Your task to perform on an android device: Search for sushi restaurants on Maps Image 0: 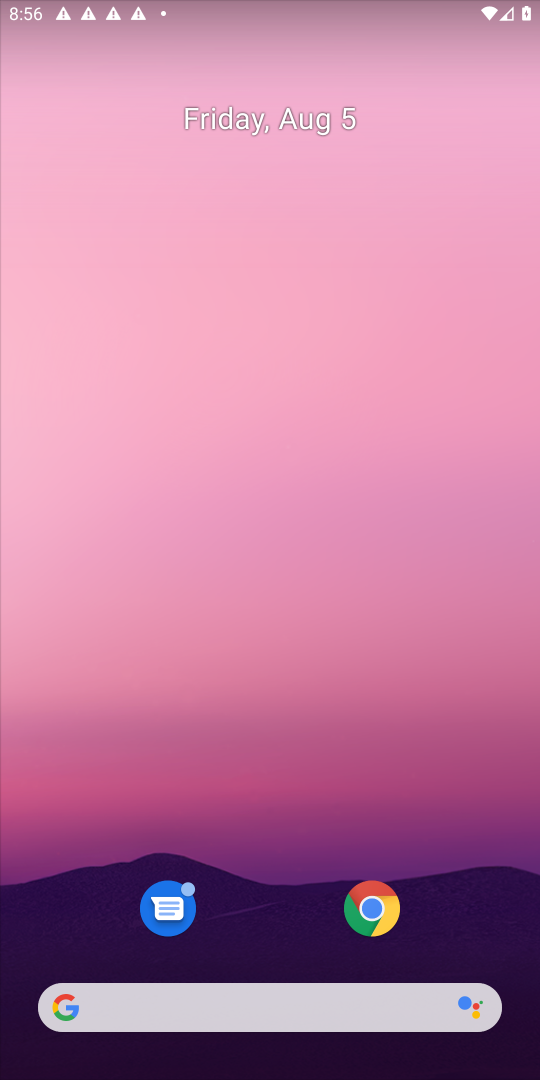
Step 0: drag from (283, 840) to (270, 373)
Your task to perform on an android device: Search for sushi restaurants on Maps Image 1: 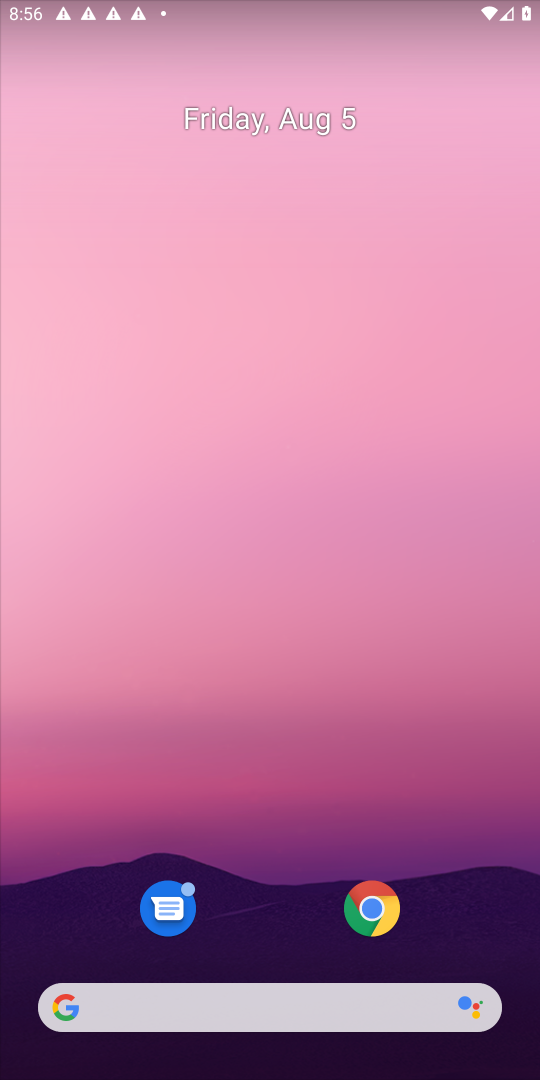
Step 1: drag from (287, 922) to (230, 73)
Your task to perform on an android device: Search for sushi restaurants on Maps Image 2: 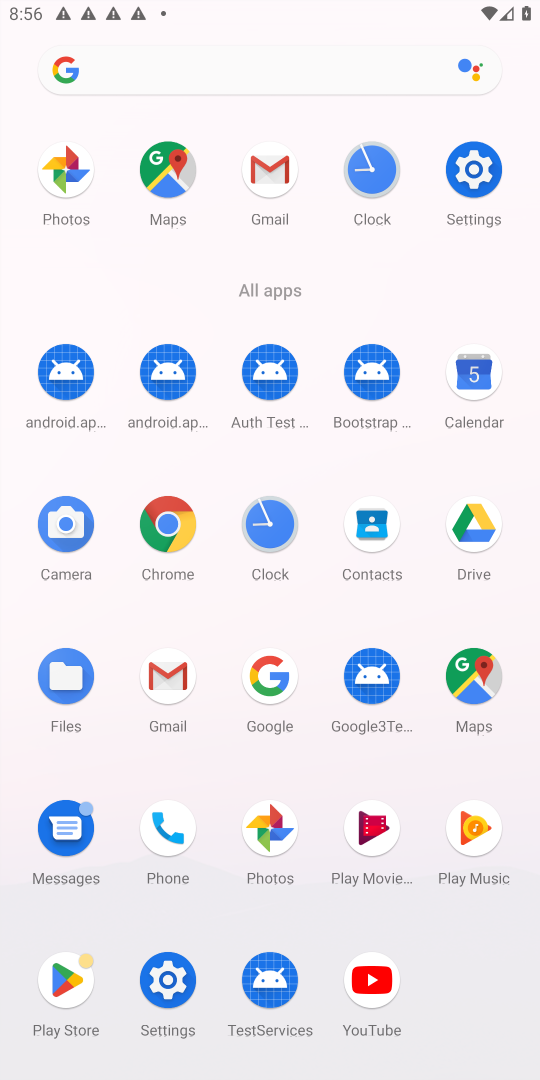
Step 2: click (171, 162)
Your task to perform on an android device: Search for sushi restaurants on Maps Image 3: 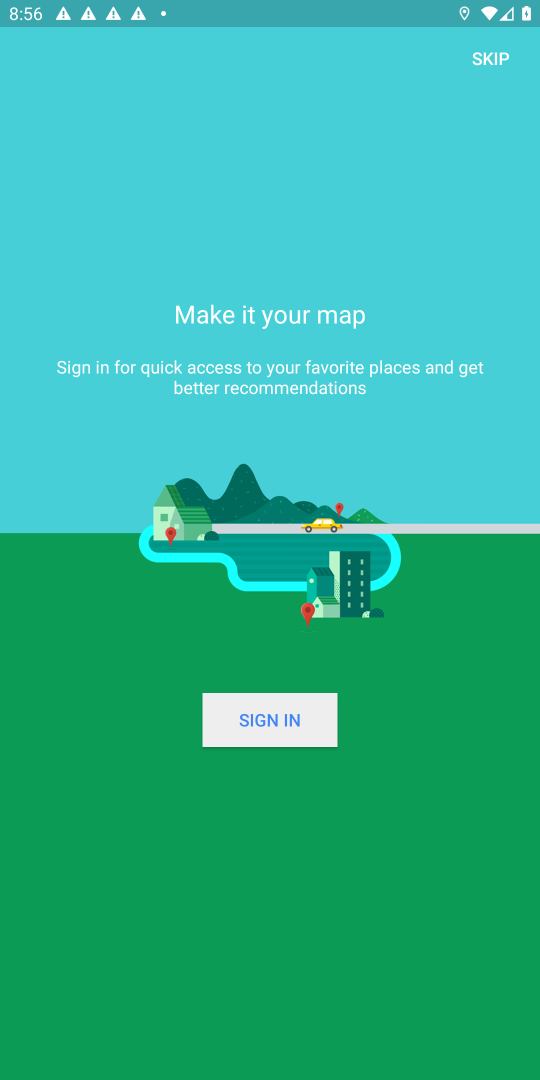
Step 3: task complete